Your task to perform on an android device: Open Youtube and go to "Your channel" Image 0: 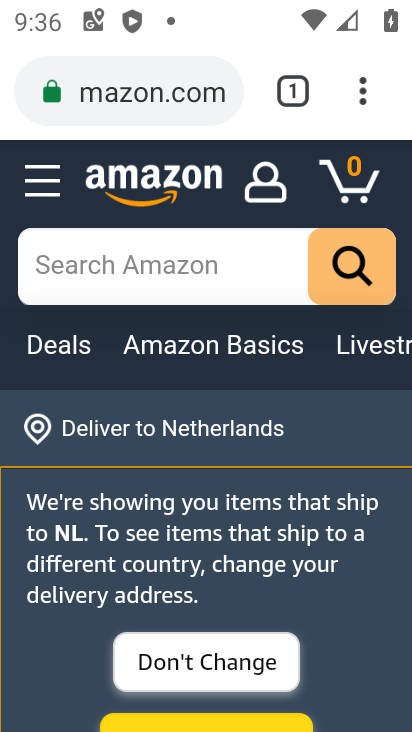
Step 0: press home button
Your task to perform on an android device: Open Youtube and go to "Your channel" Image 1: 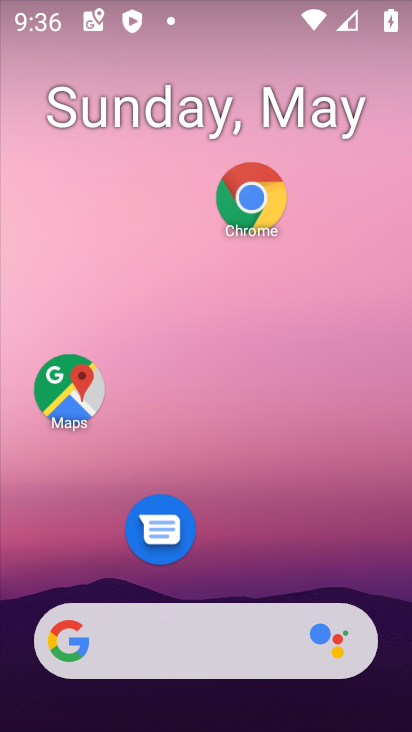
Step 1: drag from (229, 568) to (167, 19)
Your task to perform on an android device: Open Youtube and go to "Your channel" Image 2: 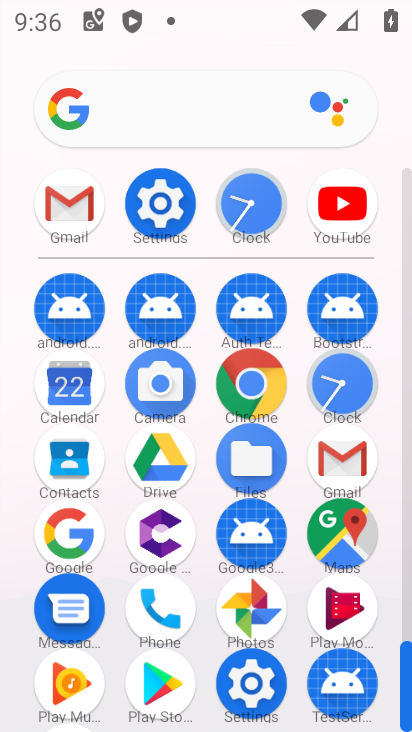
Step 2: click (330, 199)
Your task to perform on an android device: Open Youtube and go to "Your channel" Image 3: 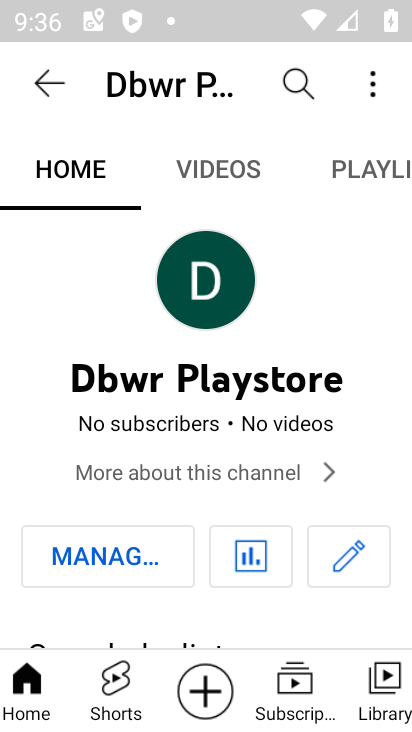
Step 3: task complete